Your task to perform on an android device: Go to battery settings Image 0: 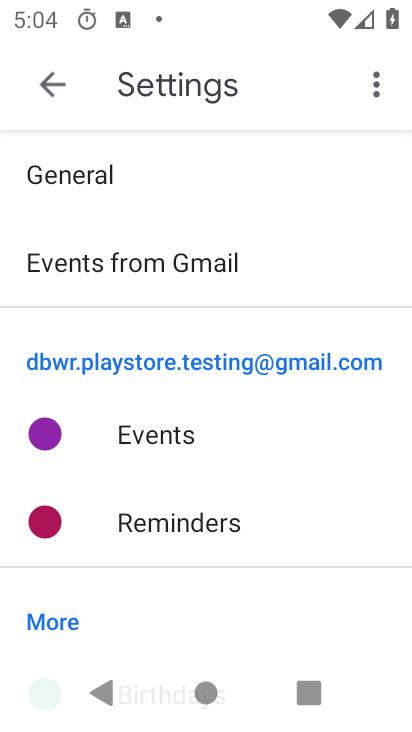
Step 0: press home button
Your task to perform on an android device: Go to battery settings Image 1: 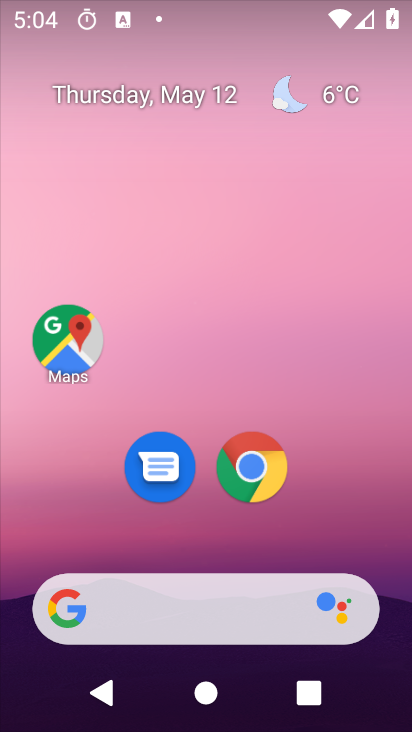
Step 1: drag from (351, 592) to (307, 69)
Your task to perform on an android device: Go to battery settings Image 2: 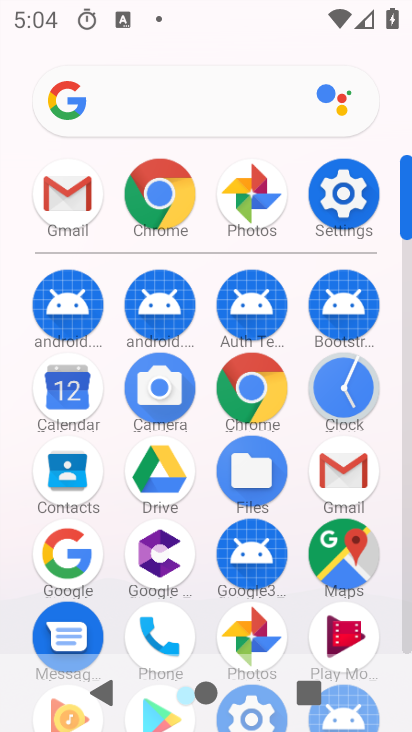
Step 2: click (326, 193)
Your task to perform on an android device: Go to battery settings Image 3: 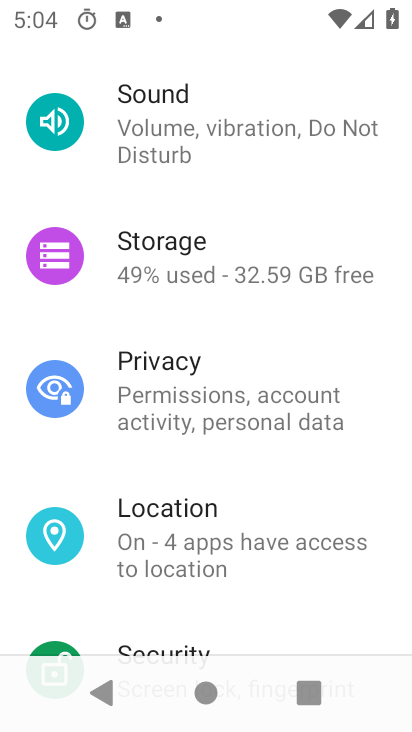
Step 3: drag from (176, 307) to (190, 671)
Your task to perform on an android device: Go to battery settings Image 4: 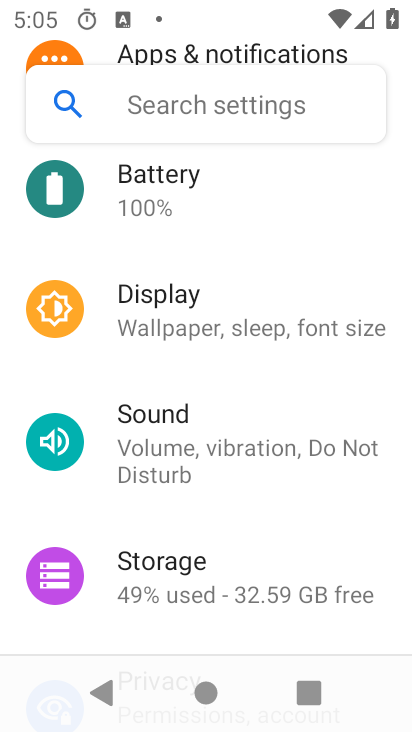
Step 4: click (218, 173)
Your task to perform on an android device: Go to battery settings Image 5: 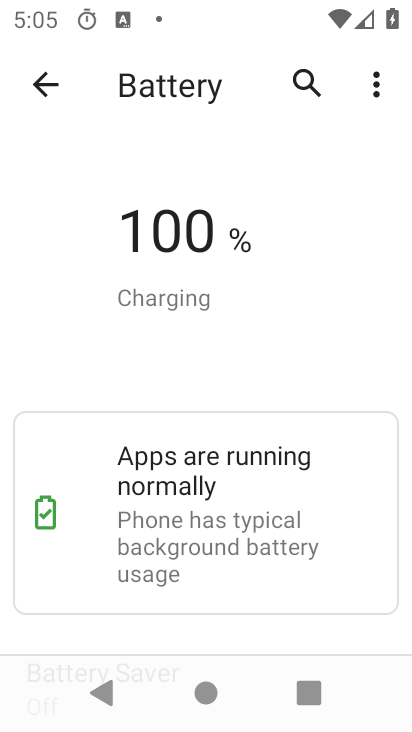
Step 5: task complete